Your task to perform on an android device: find photos in the google photos app Image 0: 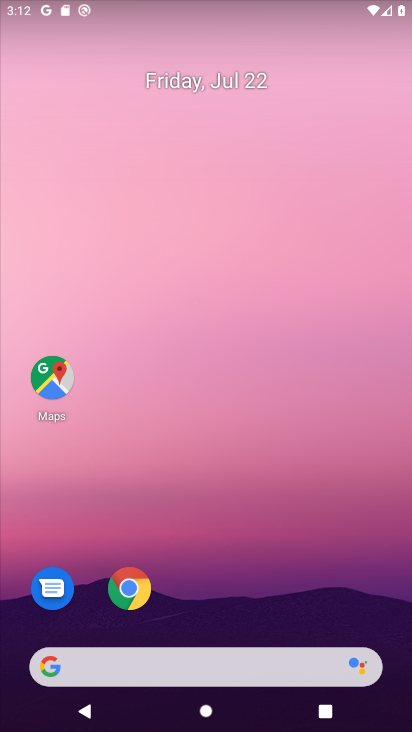
Step 0: drag from (278, 562) to (319, 0)
Your task to perform on an android device: find photos in the google photos app Image 1: 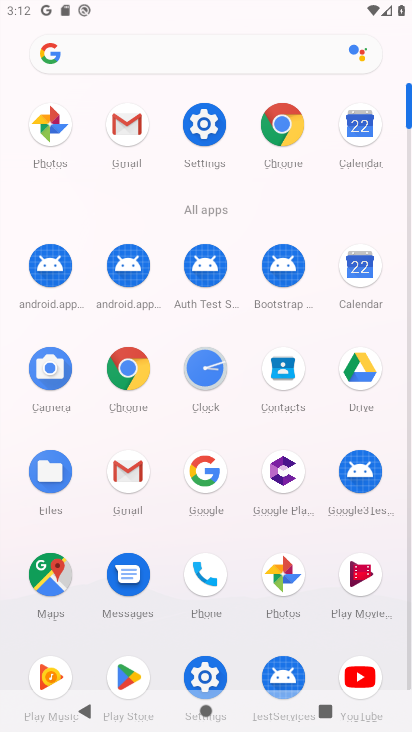
Step 1: click (281, 575)
Your task to perform on an android device: find photos in the google photos app Image 2: 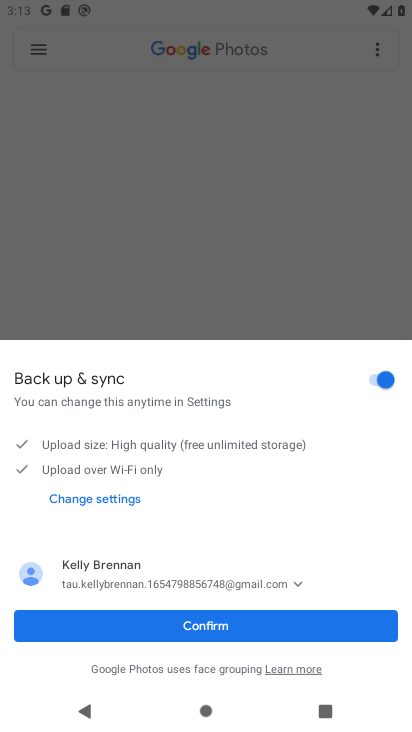
Step 2: click (242, 621)
Your task to perform on an android device: find photos in the google photos app Image 3: 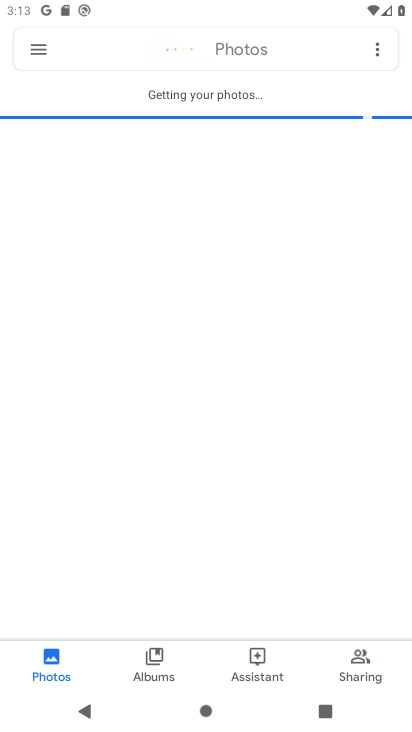
Step 3: click (59, 658)
Your task to perform on an android device: find photos in the google photos app Image 4: 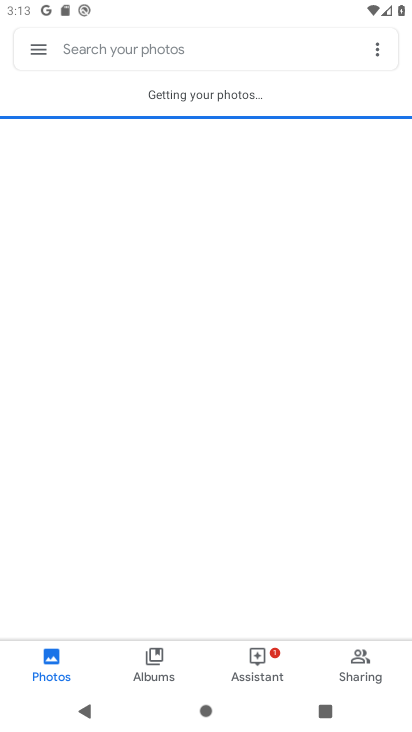
Step 4: task complete